Your task to perform on an android device: check android version Image 0: 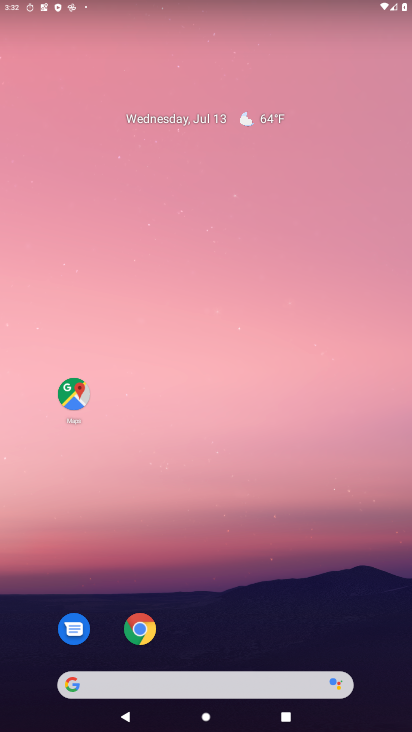
Step 0: drag from (285, 710) to (299, 44)
Your task to perform on an android device: check android version Image 1: 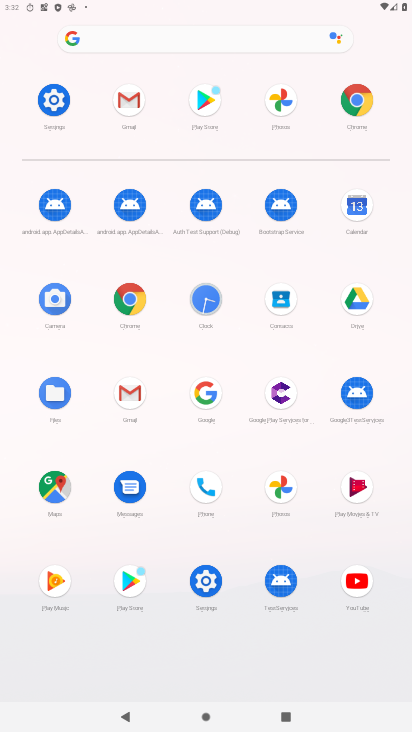
Step 1: click (60, 104)
Your task to perform on an android device: check android version Image 2: 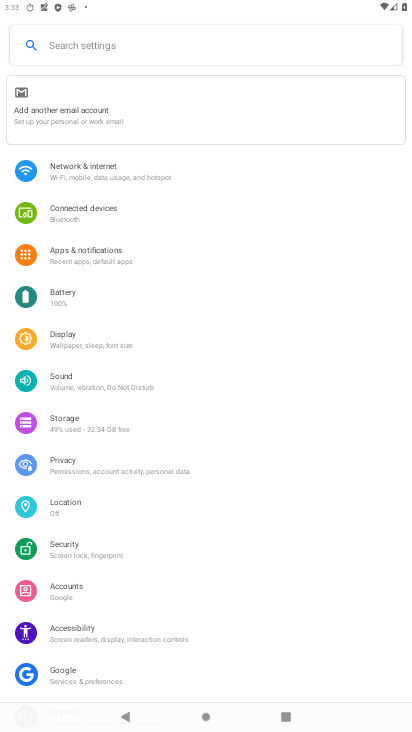
Step 2: drag from (190, 663) to (151, 9)
Your task to perform on an android device: check android version Image 3: 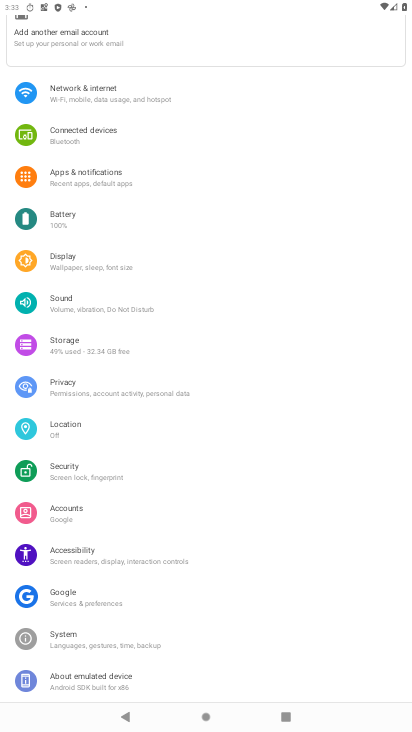
Step 3: click (111, 688)
Your task to perform on an android device: check android version Image 4: 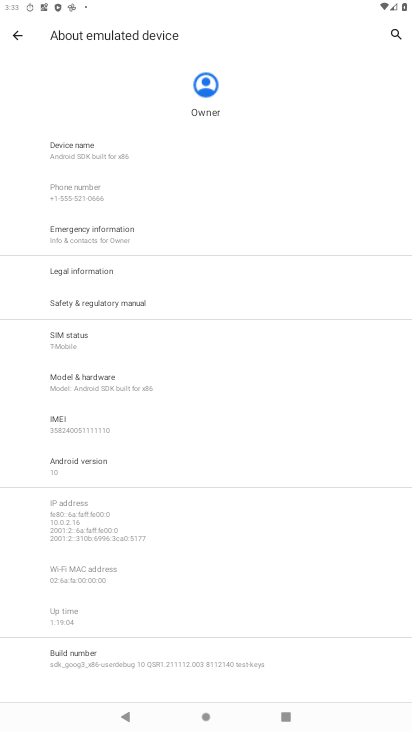
Step 4: click (88, 471)
Your task to perform on an android device: check android version Image 5: 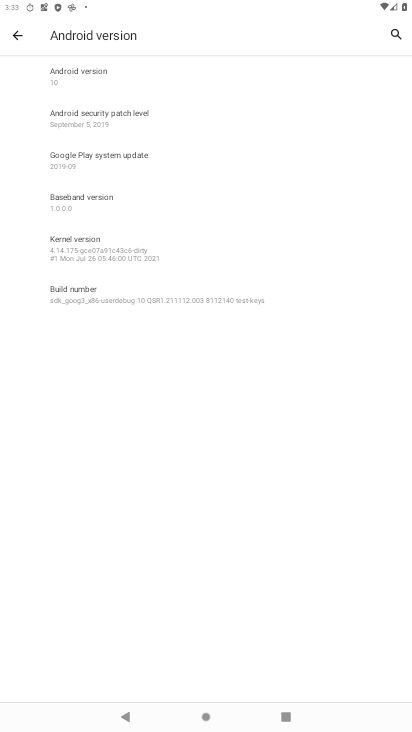
Step 5: task complete